Your task to perform on an android device: Open location settings Image 0: 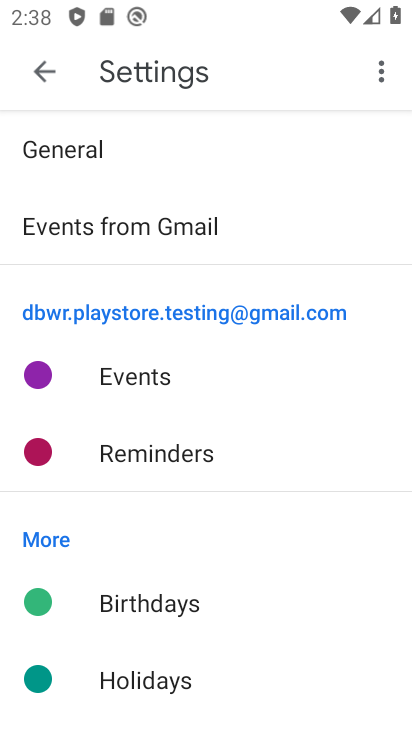
Step 0: press home button
Your task to perform on an android device: Open location settings Image 1: 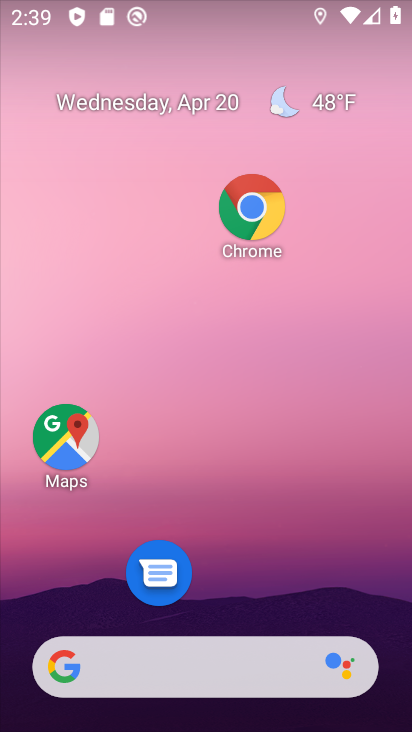
Step 1: drag from (240, 418) to (254, 259)
Your task to perform on an android device: Open location settings Image 2: 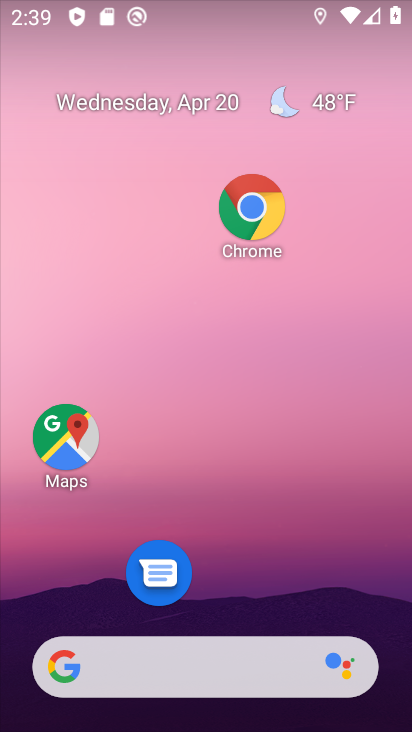
Step 2: drag from (237, 530) to (236, 132)
Your task to perform on an android device: Open location settings Image 3: 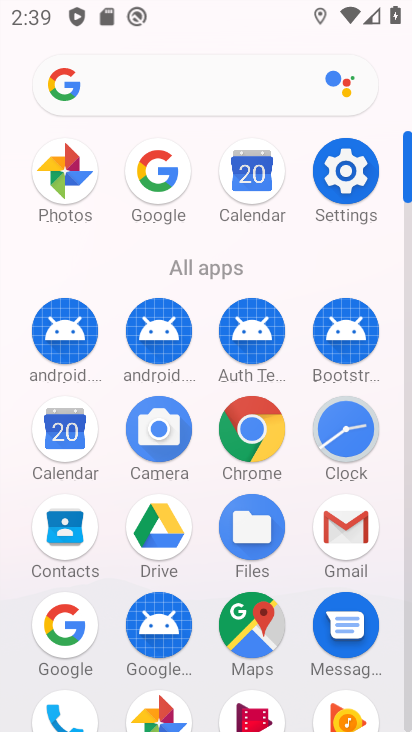
Step 3: click (345, 174)
Your task to perform on an android device: Open location settings Image 4: 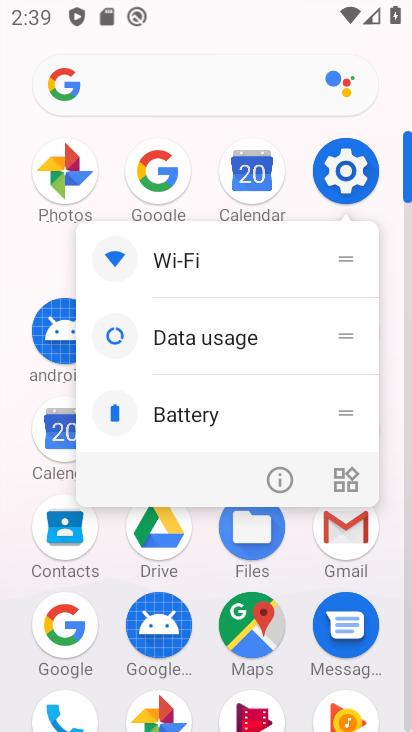
Step 4: click (347, 171)
Your task to perform on an android device: Open location settings Image 5: 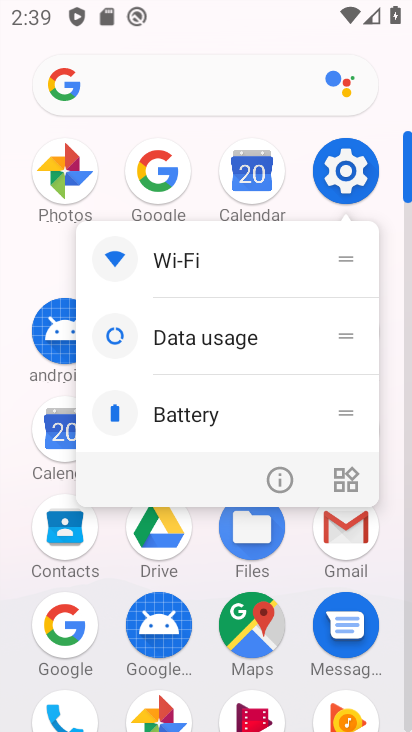
Step 5: click (346, 172)
Your task to perform on an android device: Open location settings Image 6: 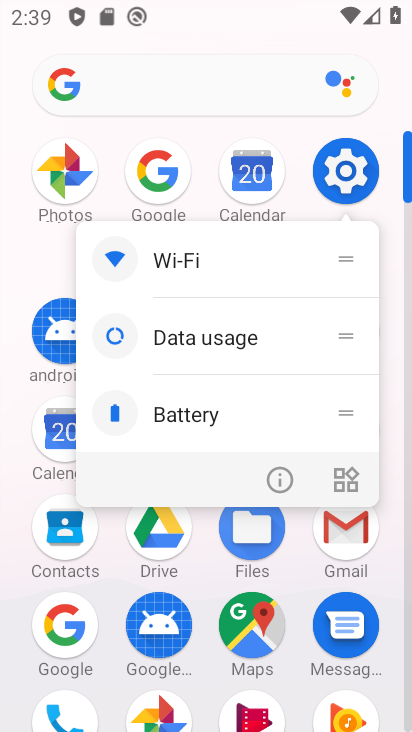
Step 6: click (344, 164)
Your task to perform on an android device: Open location settings Image 7: 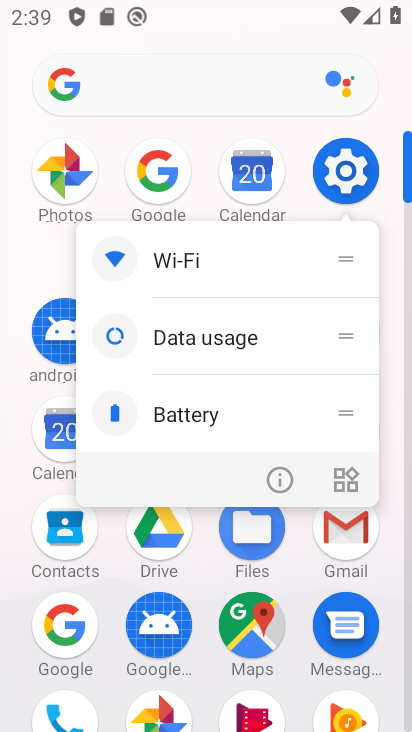
Step 7: click (343, 140)
Your task to perform on an android device: Open location settings Image 8: 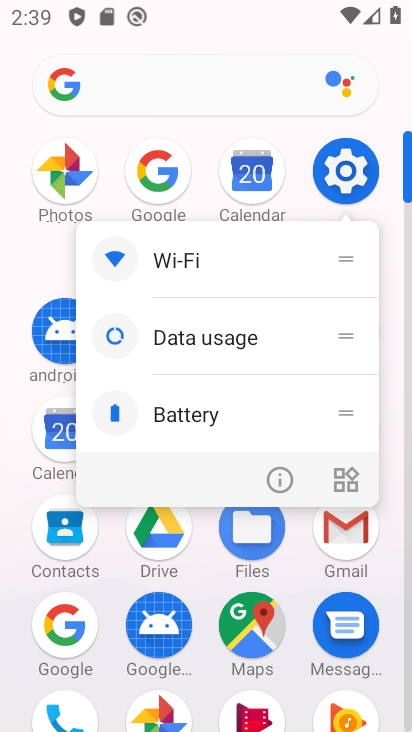
Step 8: click (329, 197)
Your task to perform on an android device: Open location settings Image 9: 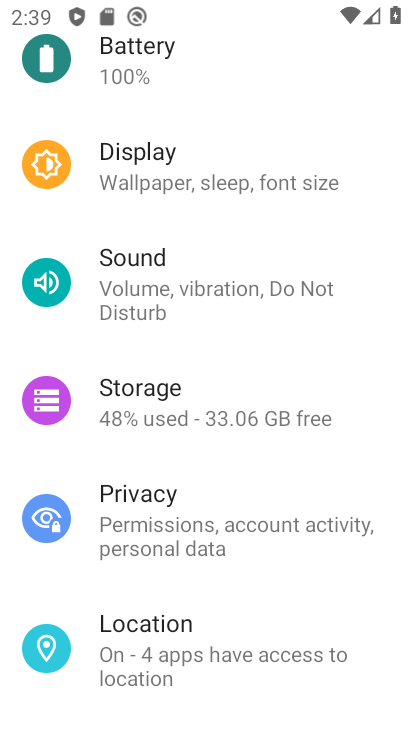
Step 9: click (181, 649)
Your task to perform on an android device: Open location settings Image 10: 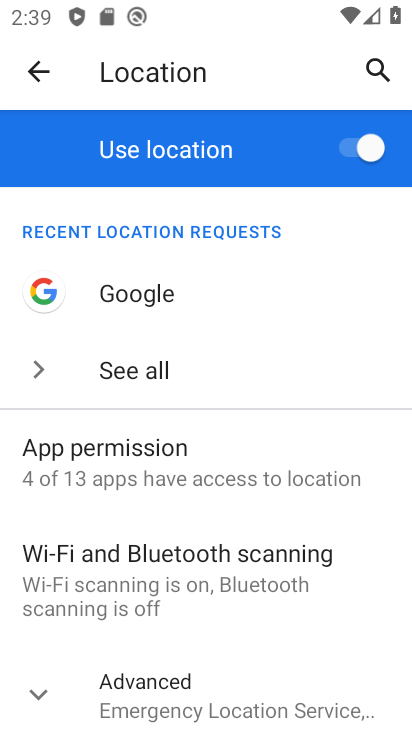
Step 10: task complete